Your task to perform on an android device: Open Youtube and go to the subscriptions tab Image 0: 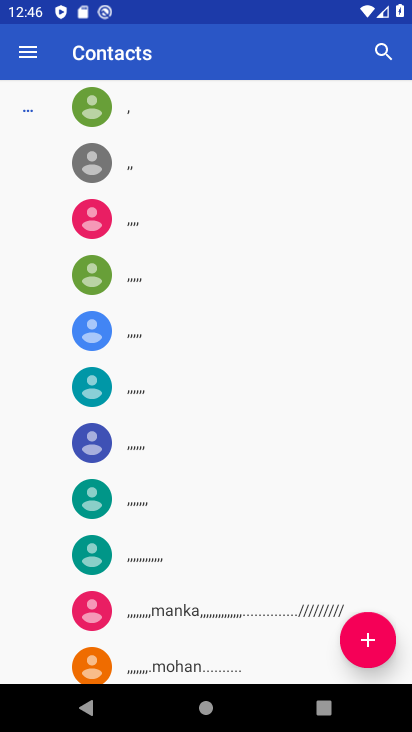
Step 0: press home button
Your task to perform on an android device: Open Youtube and go to the subscriptions tab Image 1: 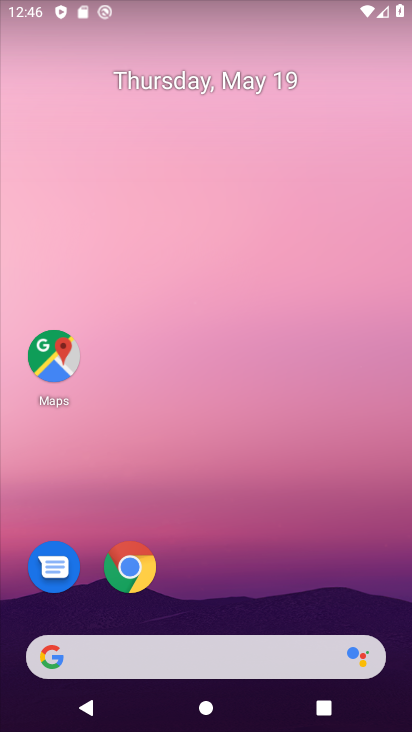
Step 1: drag from (95, 409) to (185, 238)
Your task to perform on an android device: Open Youtube and go to the subscriptions tab Image 2: 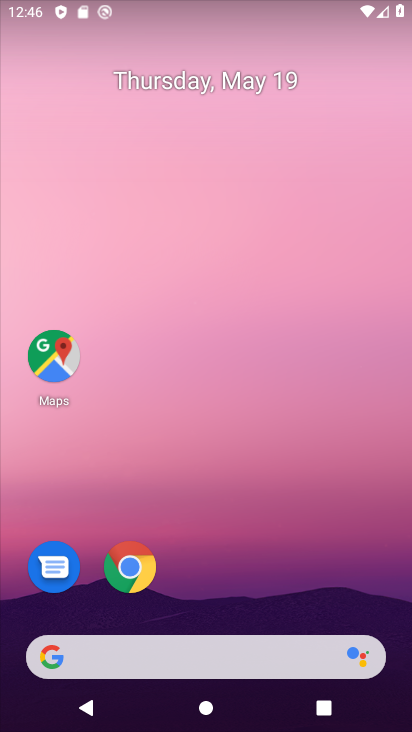
Step 2: drag from (57, 461) to (228, 137)
Your task to perform on an android device: Open Youtube and go to the subscriptions tab Image 3: 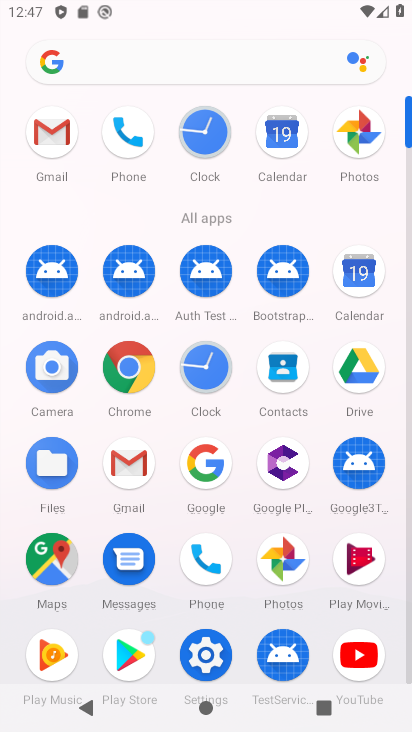
Step 3: click (370, 647)
Your task to perform on an android device: Open Youtube and go to the subscriptions tab Image 4: 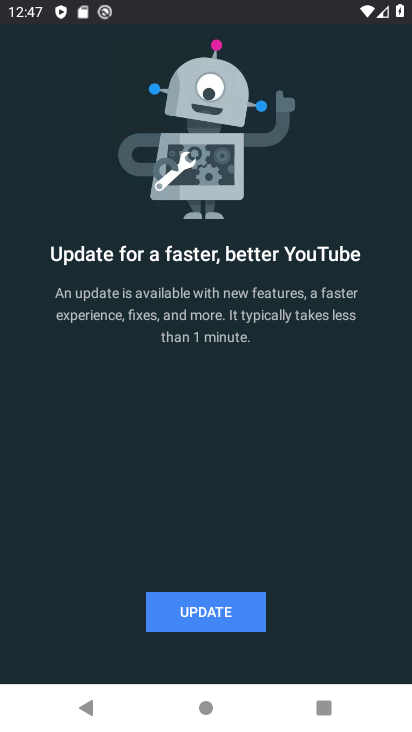
Step 4: task complete